Your task to perform on an android device: turn pop-ups on in chrome Image 0: 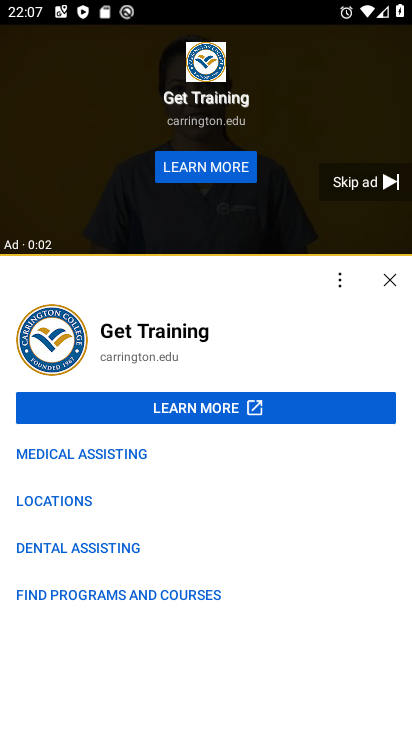
Step 0: press home button
Your task to perform on an android device: turn pop-ups on in chrome Image 1: 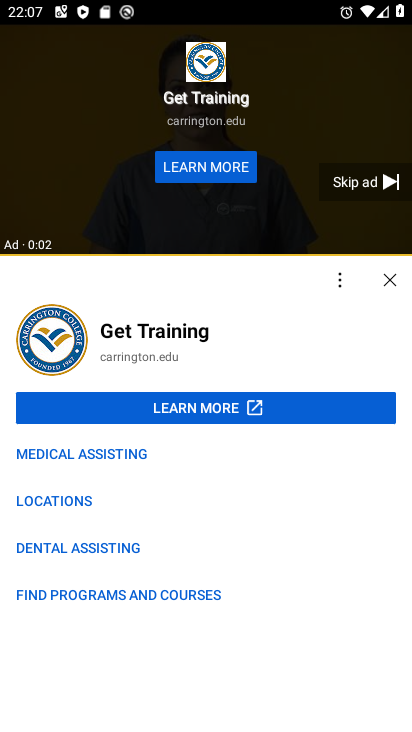
Step 1: press home button
Your task to perform on an android device: turn pop-ups on in chrome Image 2: 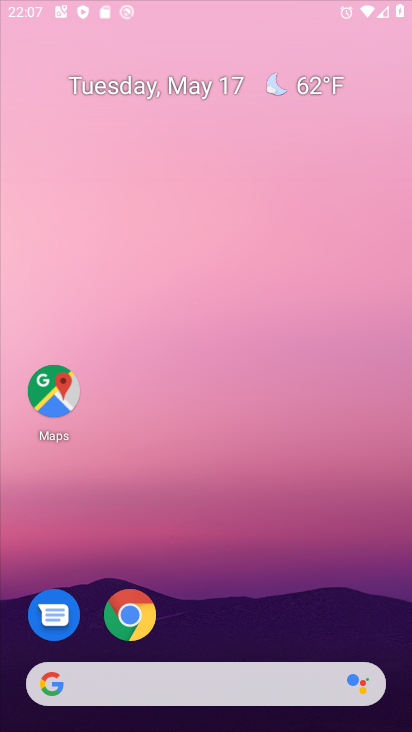
Step 2: press home button
Your task to perform on an android device: turn pop-ups on in chrome Image 3: 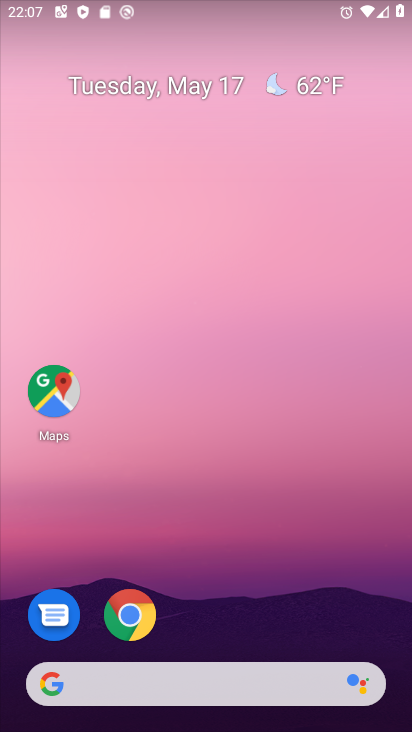
Step 3: click (137, 608)
Your task to perform on an android device: turn pop-ups on in chrome Image 4: 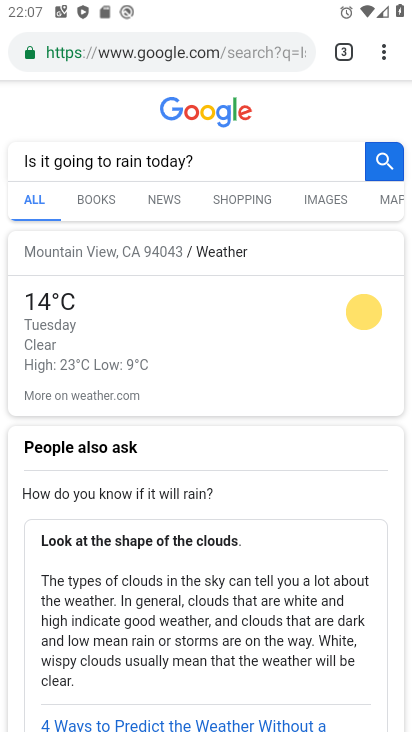
Step 4: drag from (384, 49) to (174, 572)
Your task to perform on an android device: turn pop-ups on in chrome Image 5: 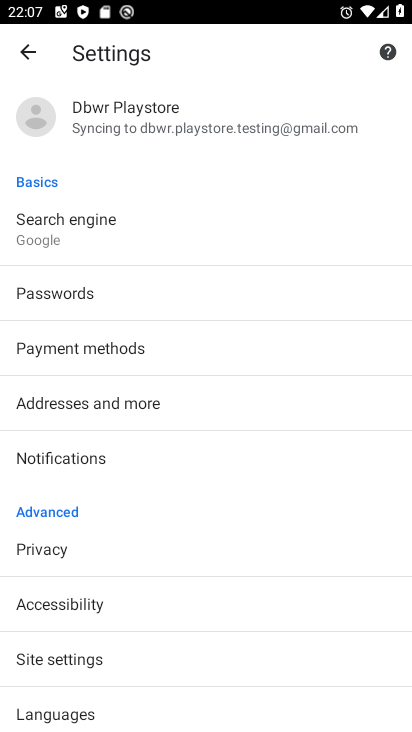
Step 5: drag from (174, 572) to (130, 277)
Your task to perform on an android device: turn pop-ups on in chrome Image 6: 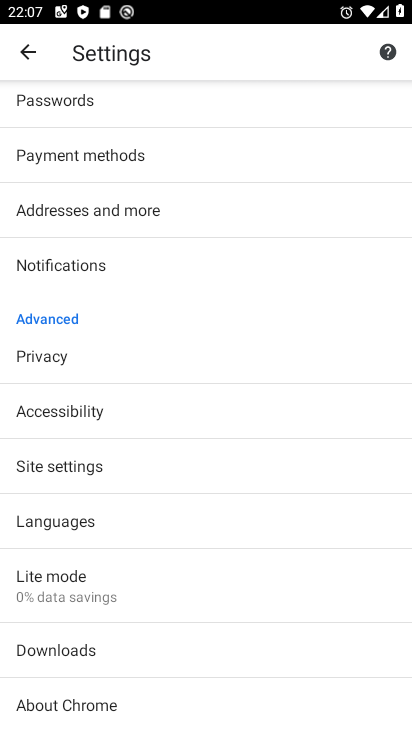
Step 6: click (124, 464)
Your task to perform on an android device: turn pop-ups on in chrome Image 7: 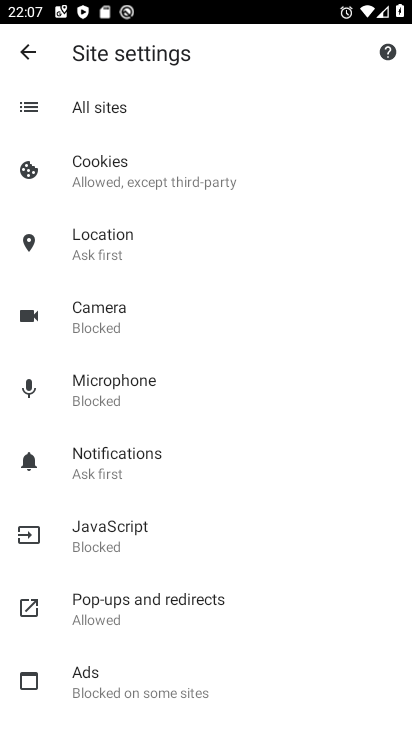
Step 7: click (132, 595)
Your task to perform on an android device: turn pop-ups on in chrome Image 8: 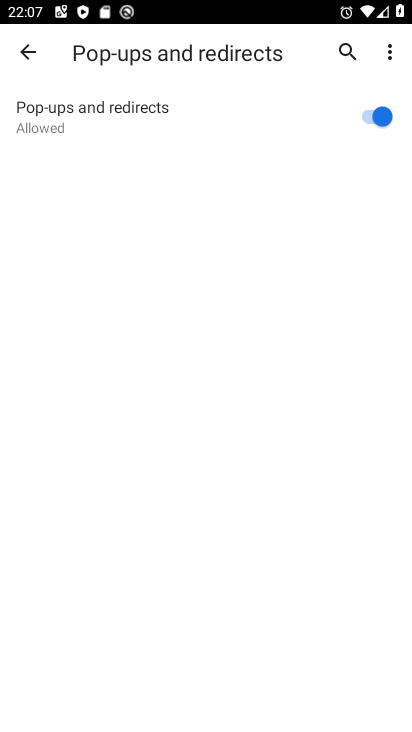
Step 8: task complete